Your task to perform on an android device: Clear the shopping cart on target. Add jbl flip 4 to the cart on target Image 0: 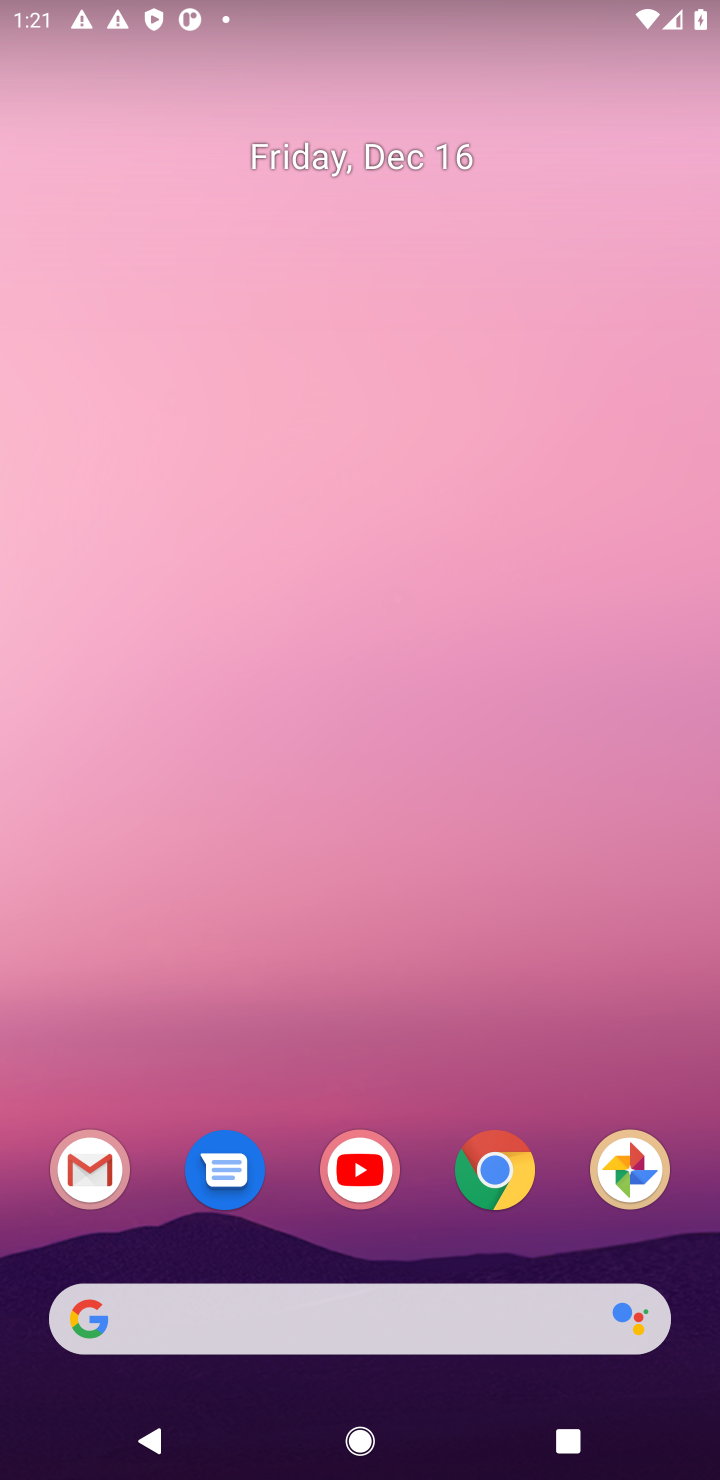
Step 0: click (491, 1191)
Your task to perform on an android device: Clear the shopping cart on target. Add jbl flip 4 to the cart on target Image 1: 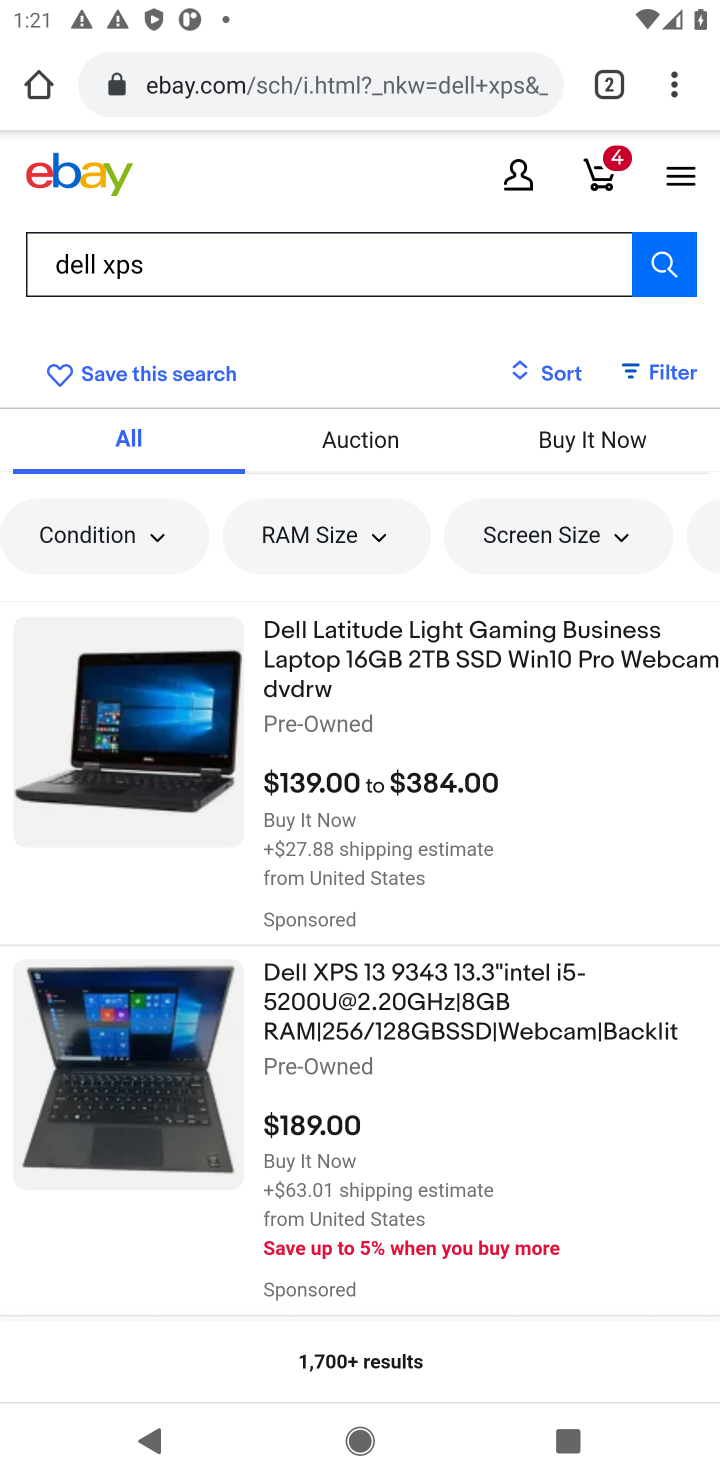
Step 1: click (246, 91)
Your task to perform on an android device: Clear the shopping cart on target. Add jbl flip 4 to the cart on target Image 2: 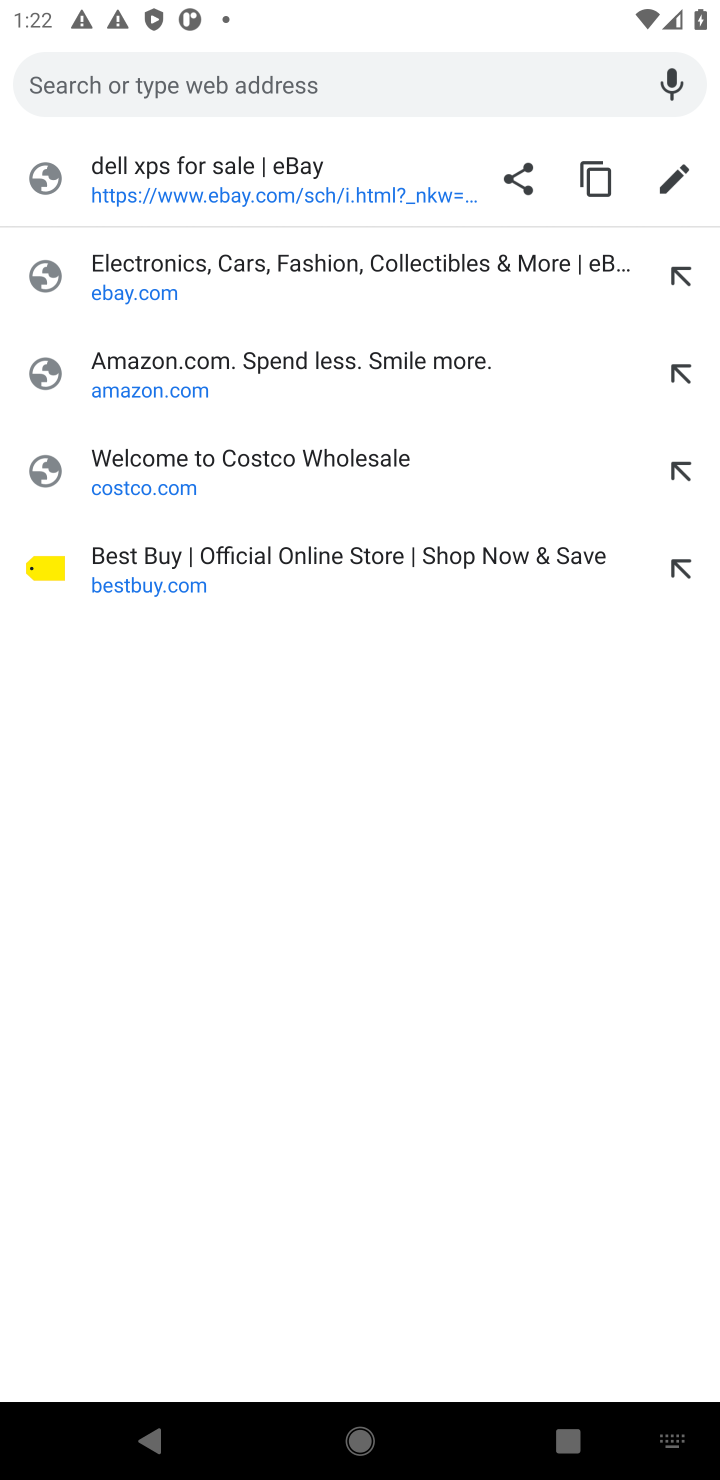
Step 2: type "target.com"
Your task to perform on an android device: Clear the shopping cart on target. Add jbl flip 4 to the cart on target Image 3: 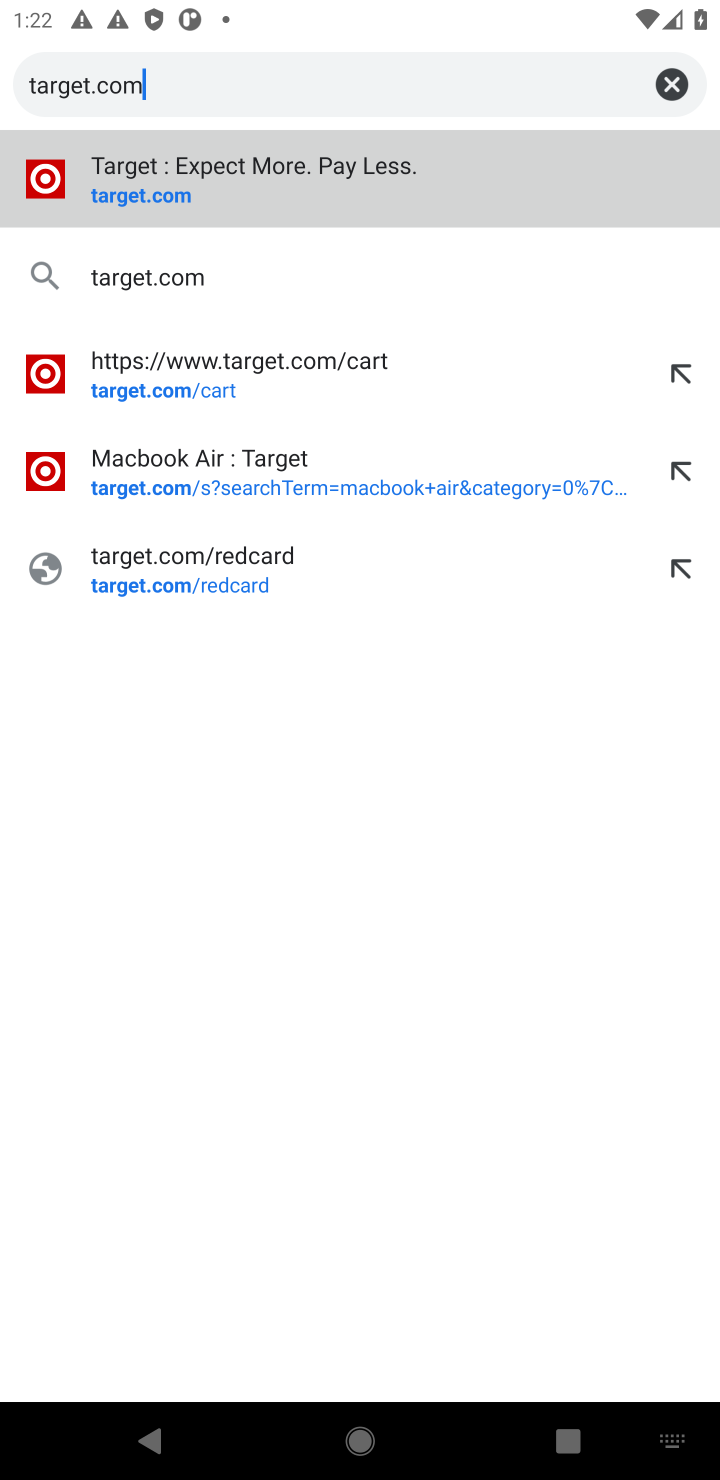
Step 3: click (121, 209)
Your task to perform on an android device: Clear the shopping cart on target. Add jbl flip 4 to the cart on target Image 4: 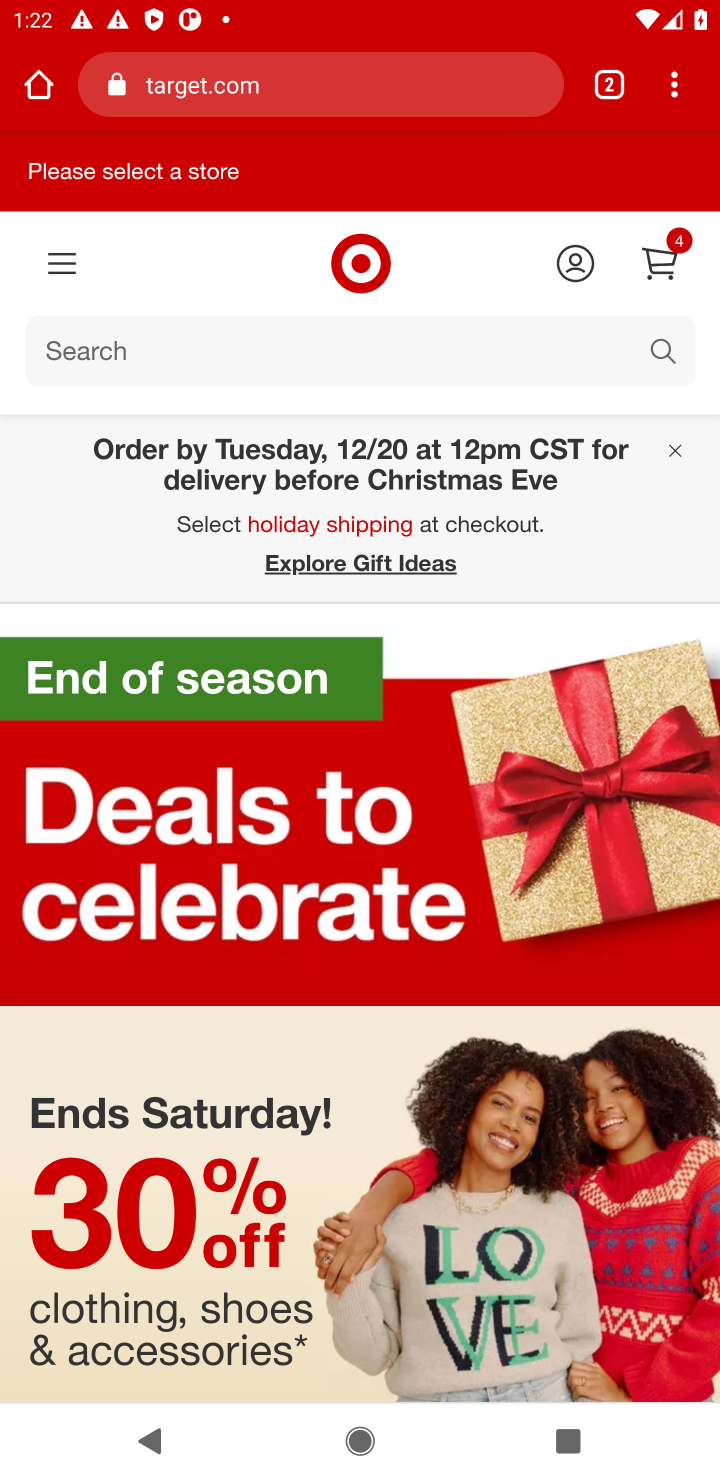
Step 4: click (664, 270)
Your task to perform on an android device: Clear the shopping cart on target. Add jbl flip 4 to the cart on target Image 5: 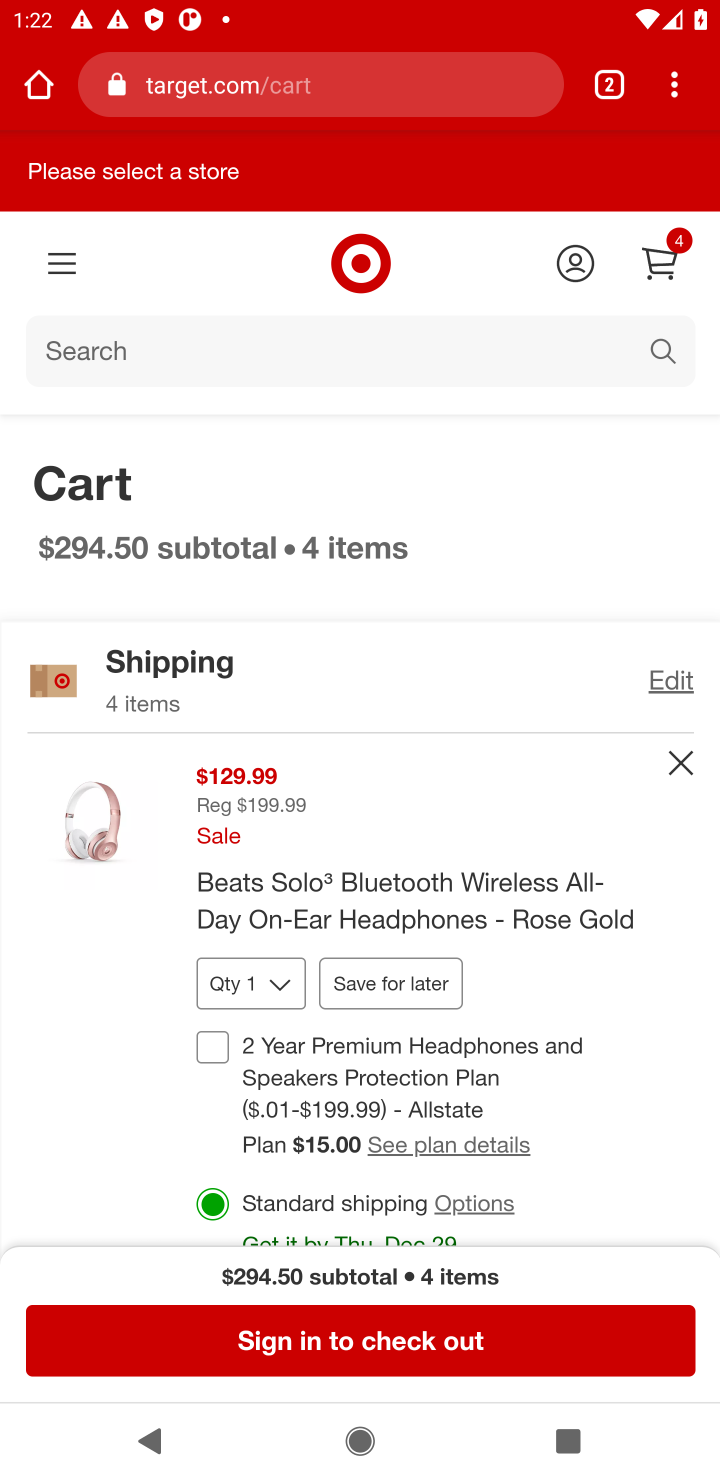
Step 5: click (667, 761)
Your task to perform on an android device: Clear the shopping cart on target. Add jbl flip 4 to the cart on target Image 6: 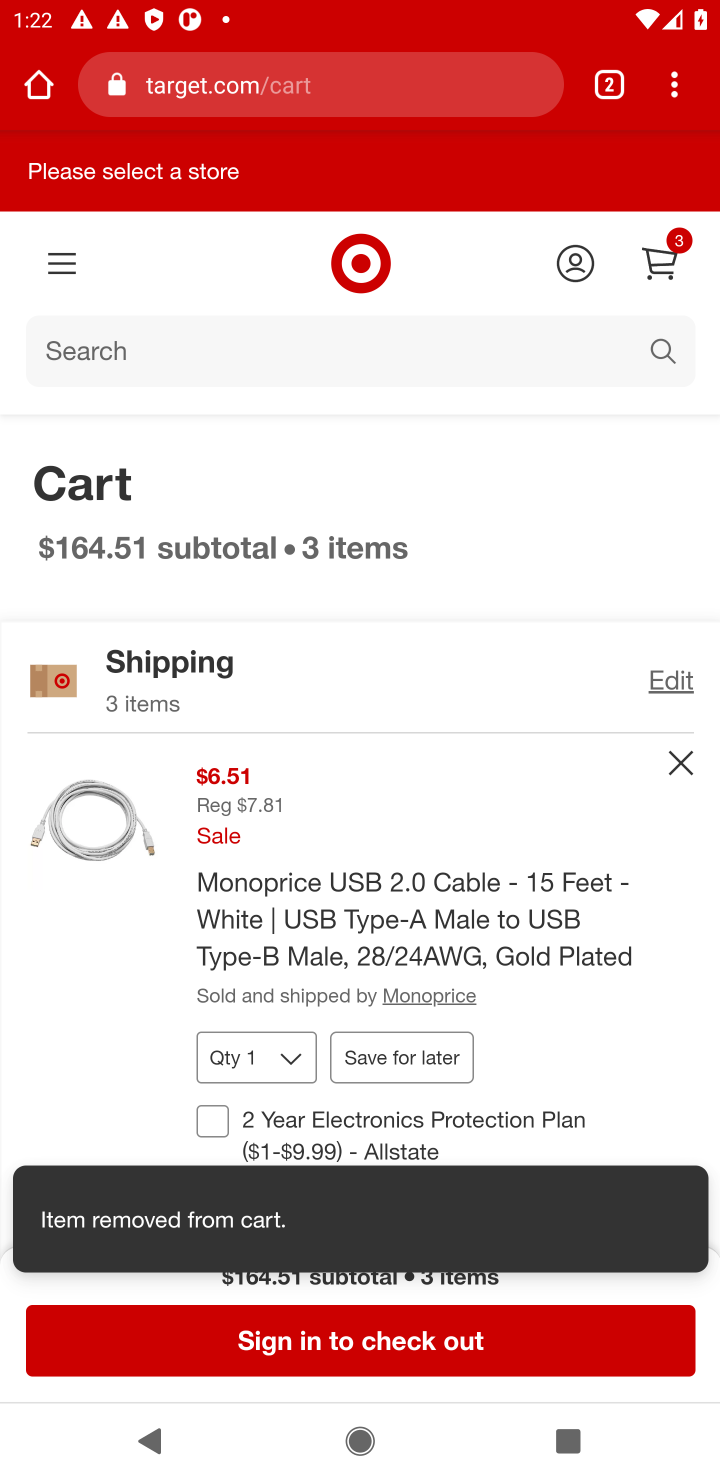
Step 6: click (685, 774)
Your task to perform on an android device: Clear the shopping cart on target. Add jbl flip 4 to the cart on target Image 7: 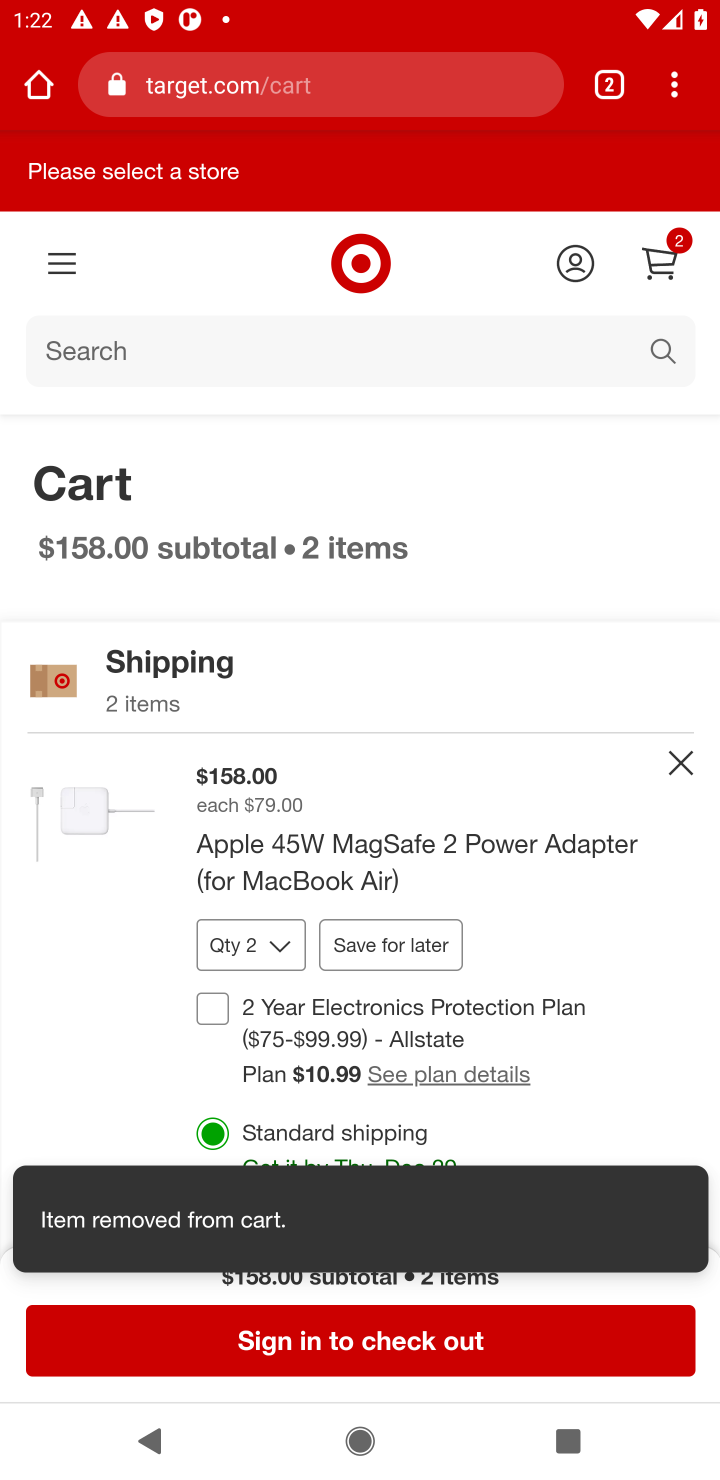
Step 7: click (685, 774)
Your task to perform on an android device: Clear the shopping cart on target. Add jbl flip 4 to the cart on target Image 8: 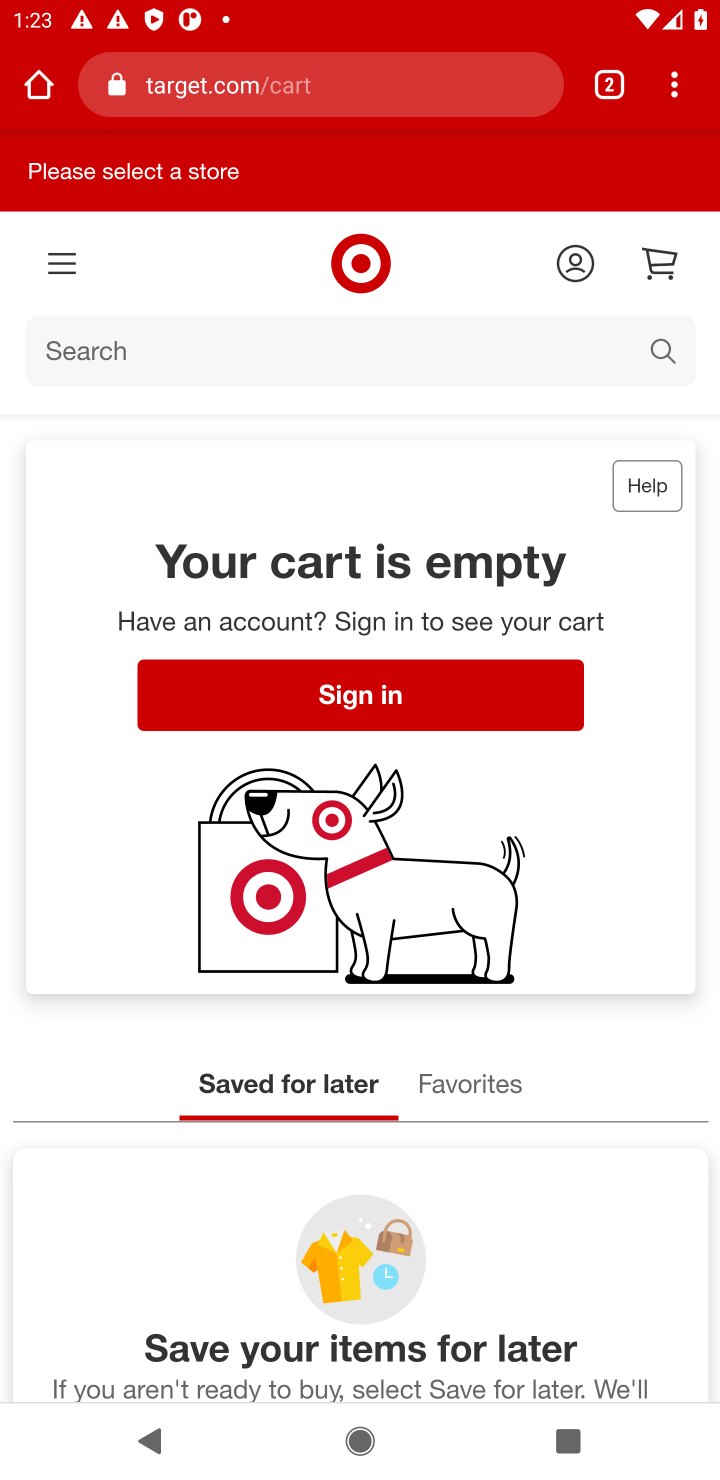
Step 8: click (115, 356)
Your task to perform on an android device: Clear the shopping cart on target. Add jbl flip 4 to the cart on target Image 9: 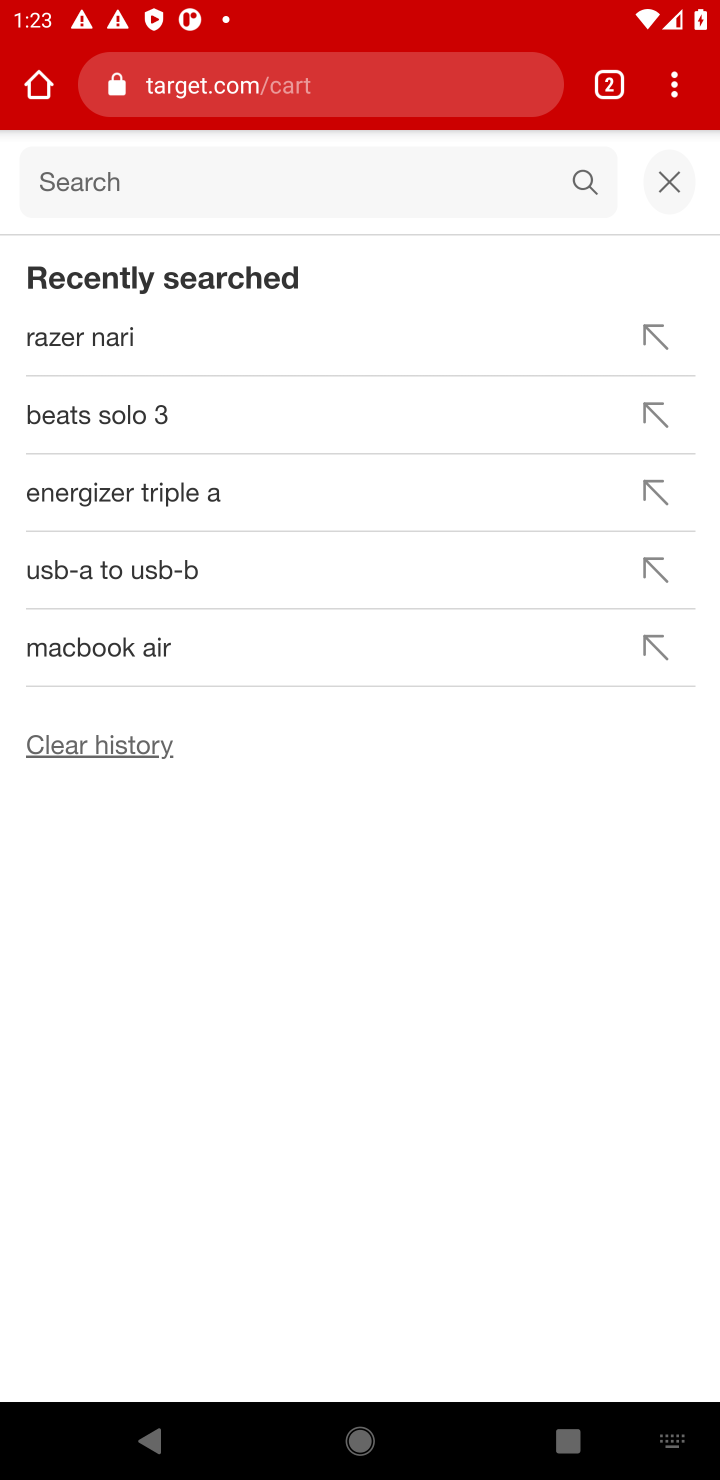
Step 9: type "jbl flip 4"
Your task to perform on an android device: Clear the shopping cart on target. Add jbl flip 4 to the cart on target Image 10: 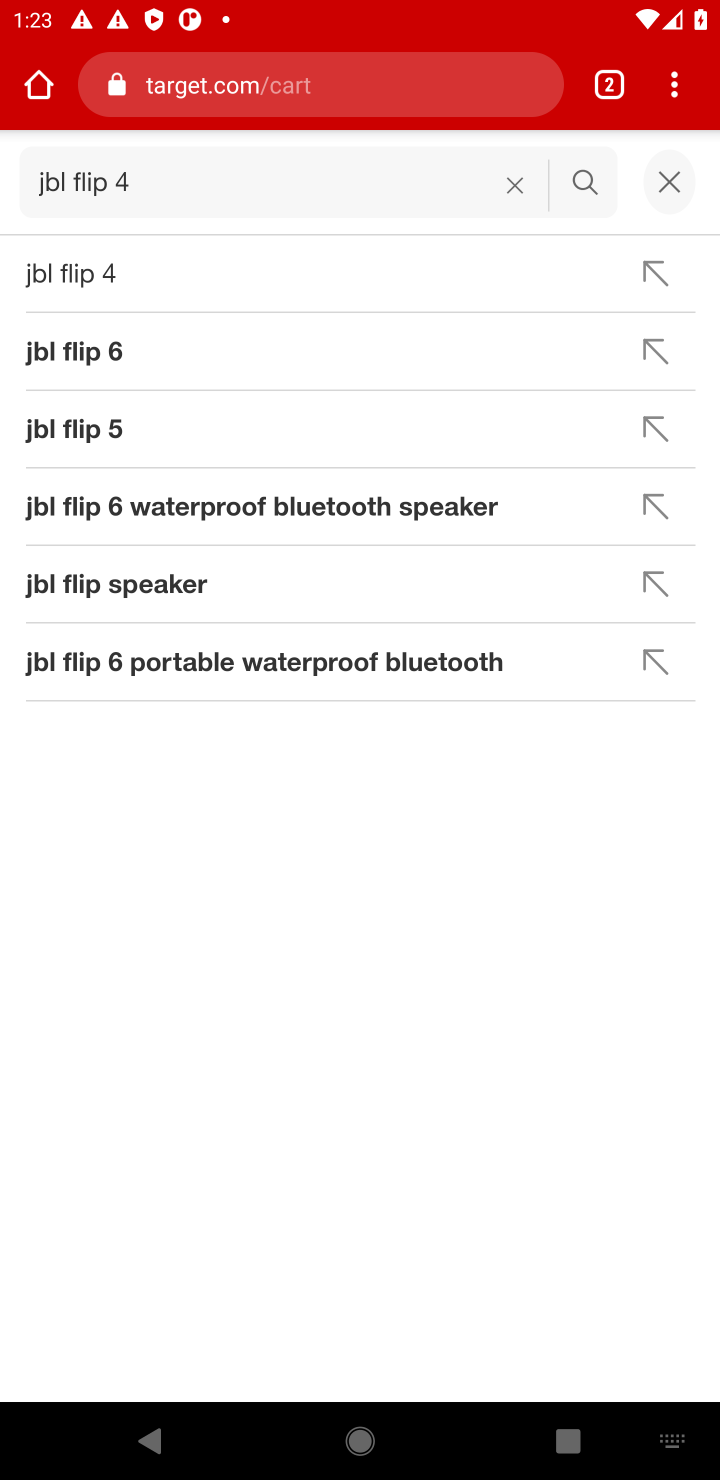
Step 10: click (64, 285)
Your task to perform on an android device: Clear the shopping cart on target. Add jbl flip 4 to the cart on target Image 11: 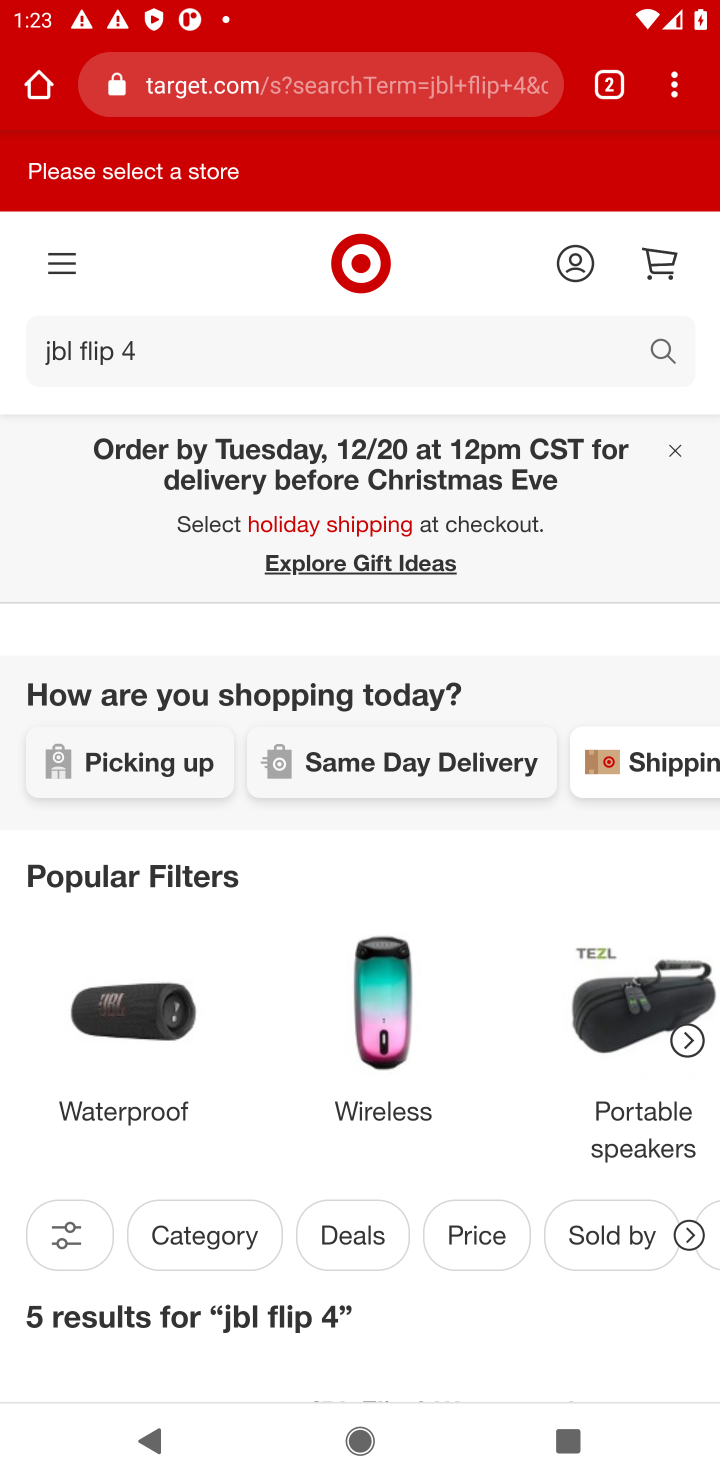
Step 11: task complete